Your task to perform on an android device: What's the news in Guyana? Image 0: 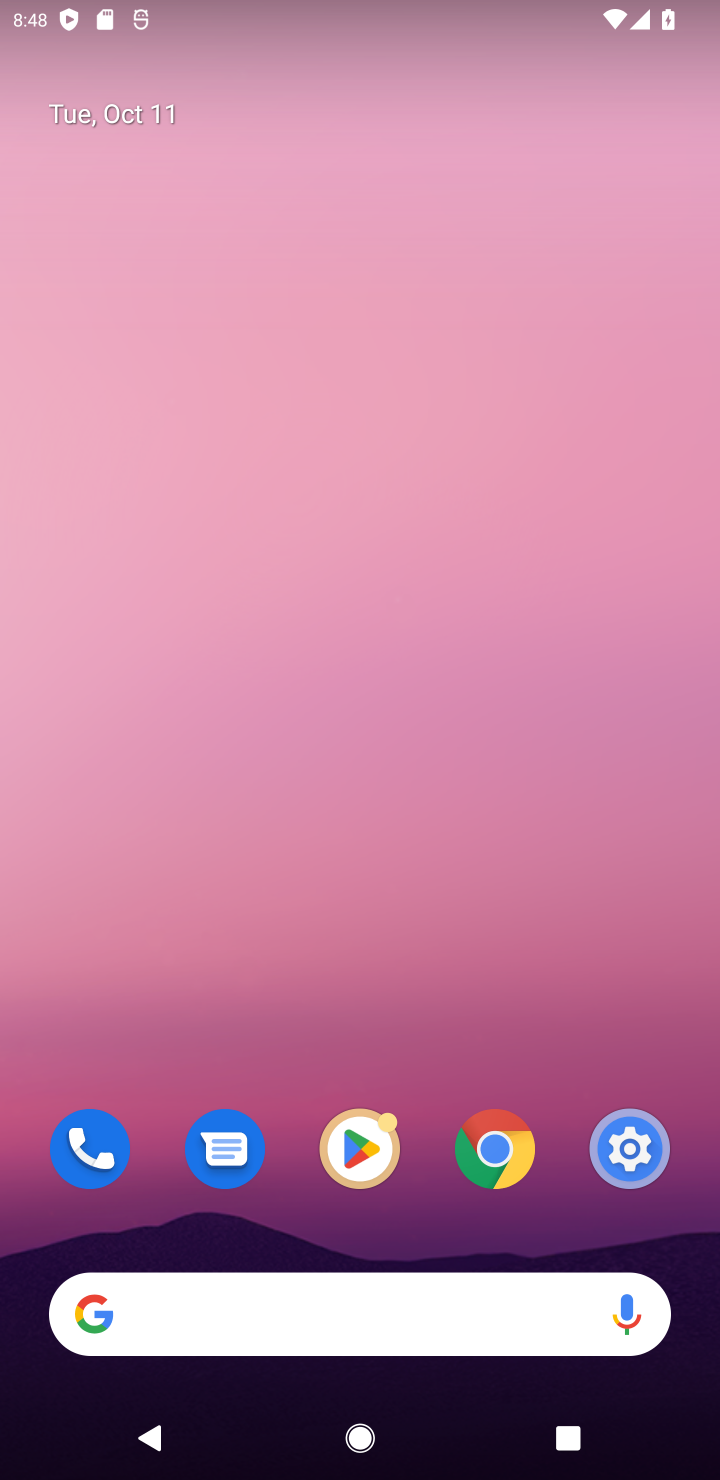
Step 0: drag from (362, 1169) to (464, 169)
Your task to perform on an android device: What's the news in Guyana? Image 1: 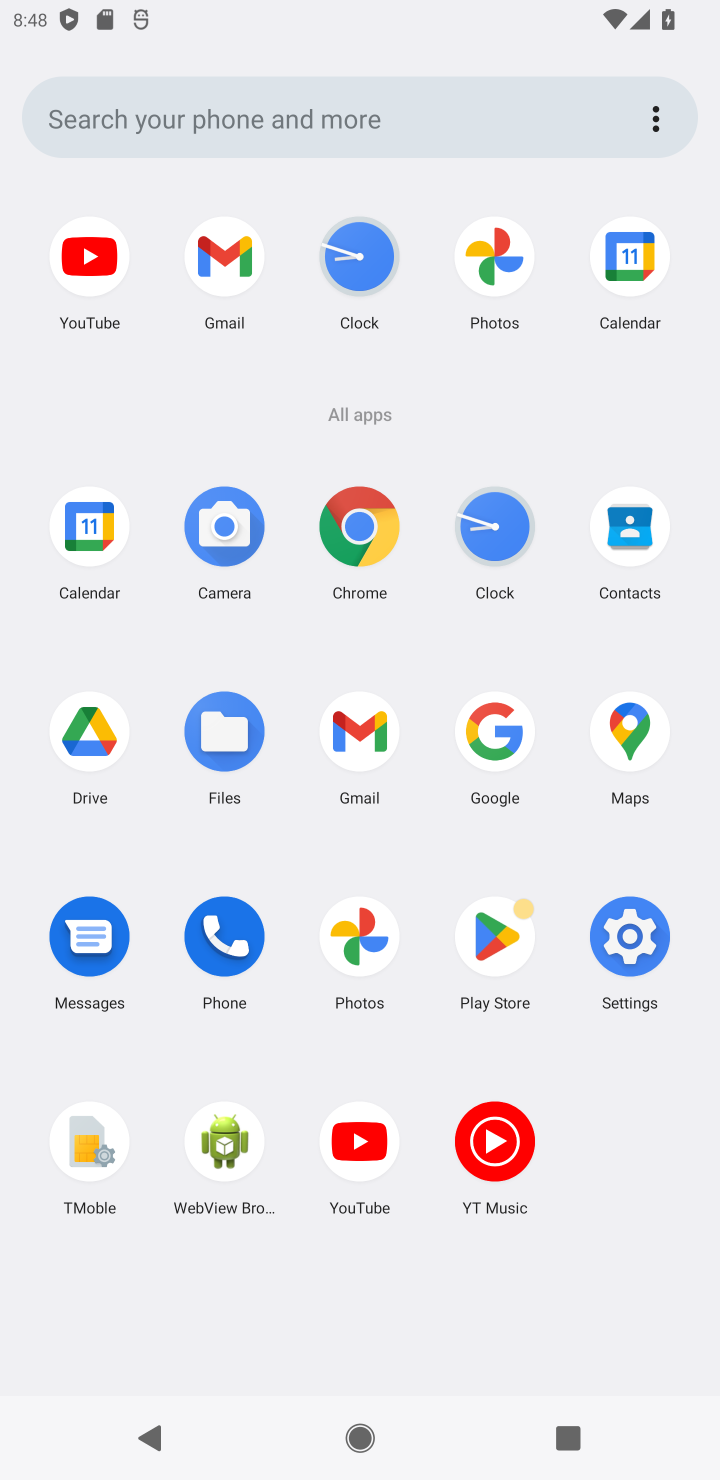
Step 1: click (380, 539)
Your task to perform on an android device: What's the news in Guyana? Image 2: 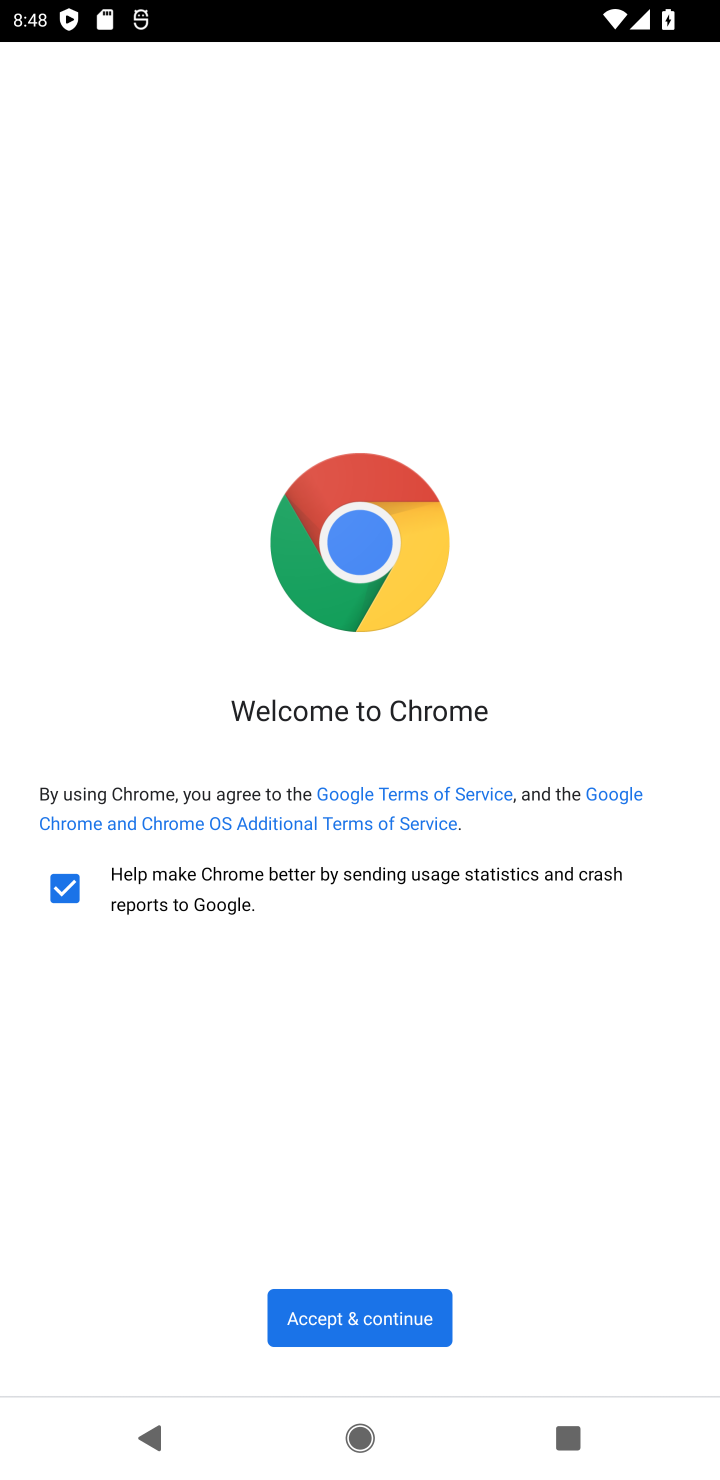
Step 2: click (407, 1326)
Your task to perform on an android device: What's the news in Guyana? Image 3: 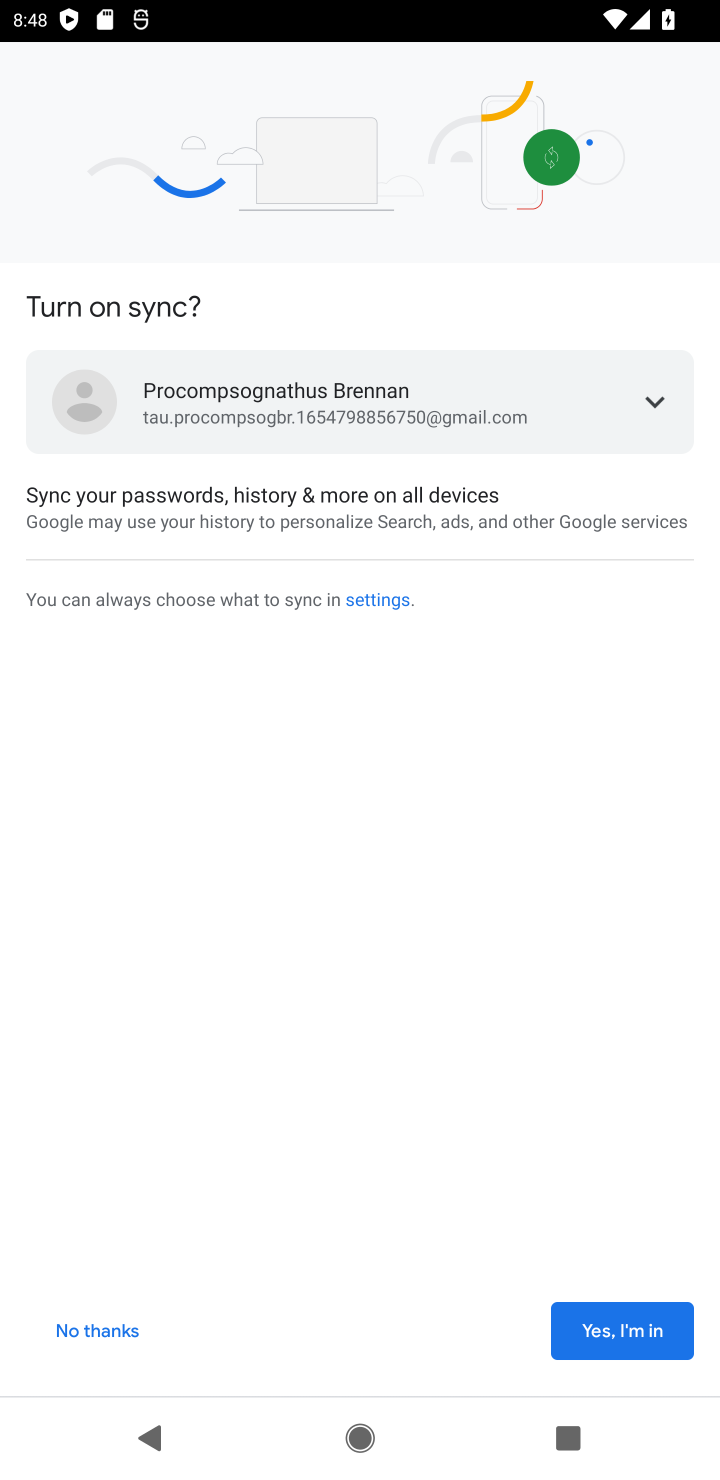
Step 3: click (623, 1333)
Your task to perform on an android device: What's the news in Guyana? Image 4: 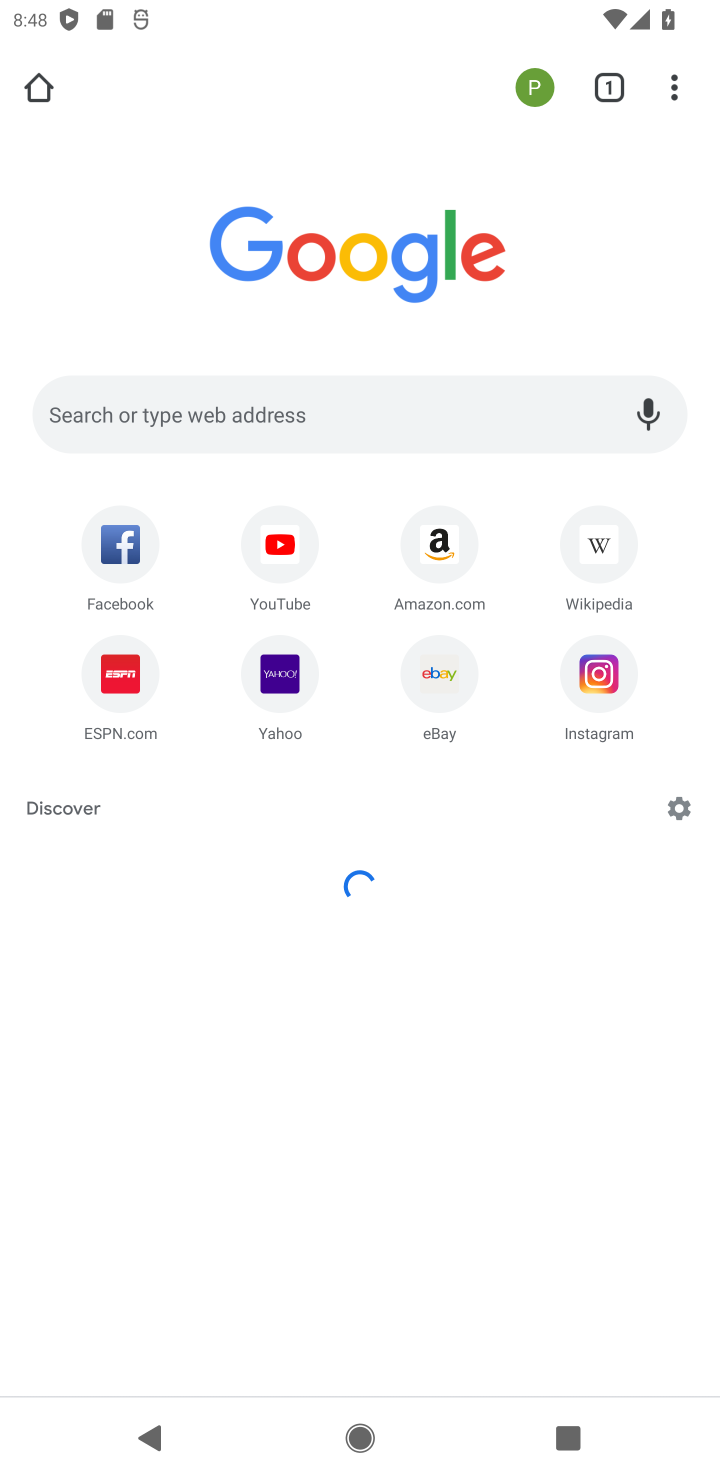
Step 4: click (310, 428)
Your task to perform on an android device: What's the news in Guyana? Image 5: 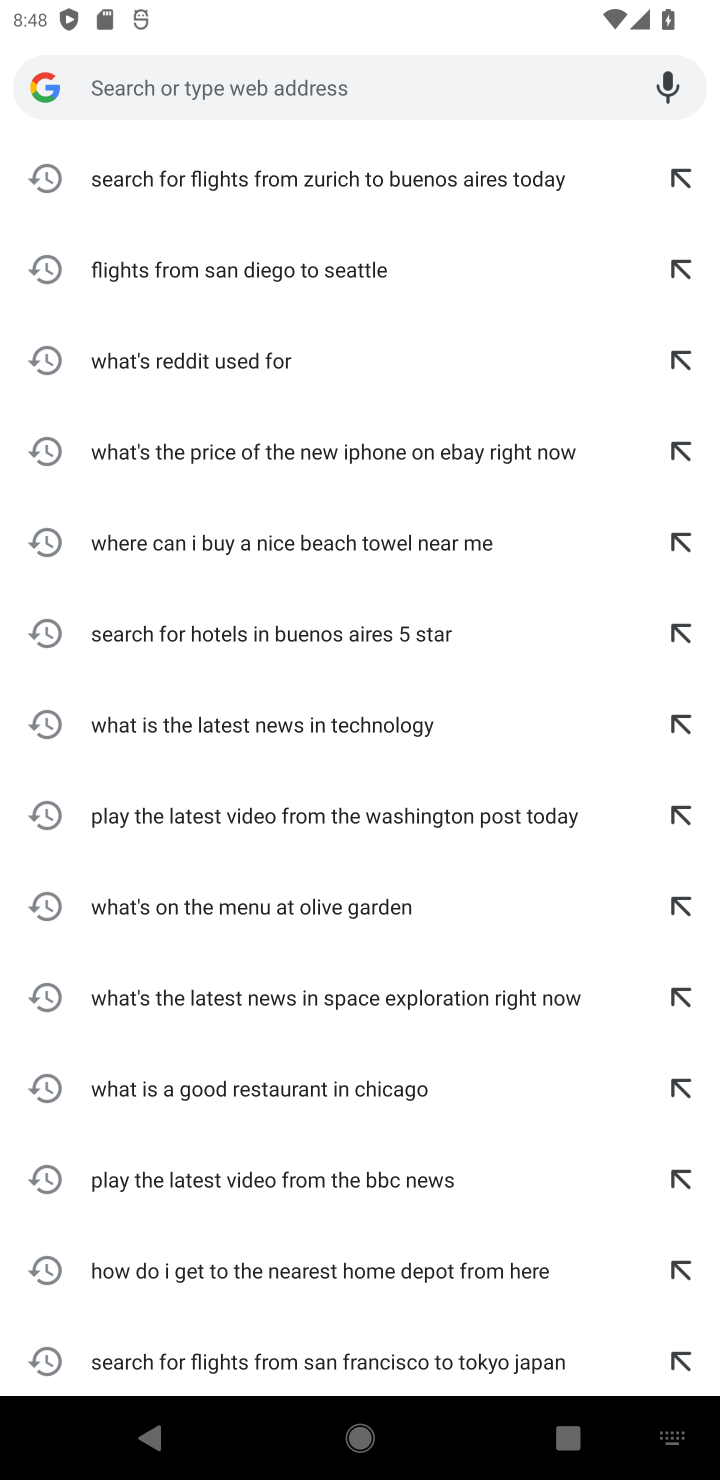
Step 5: type "What's the news in Guyana?"
Your task to perform on an android device: What's the news in Guyana? Image 6: 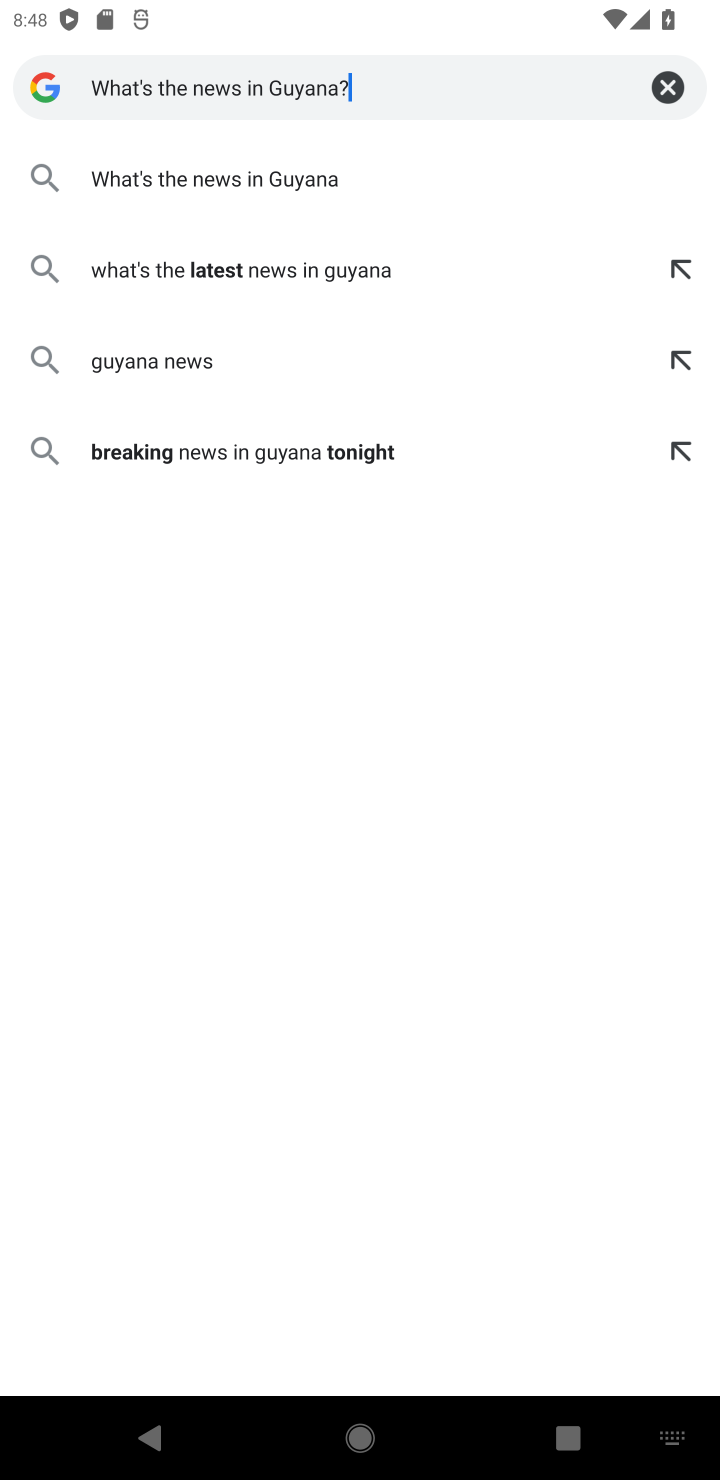
Step 6: press enter
Your task to perform on an android device: What's the news in Guyana? Image 7: 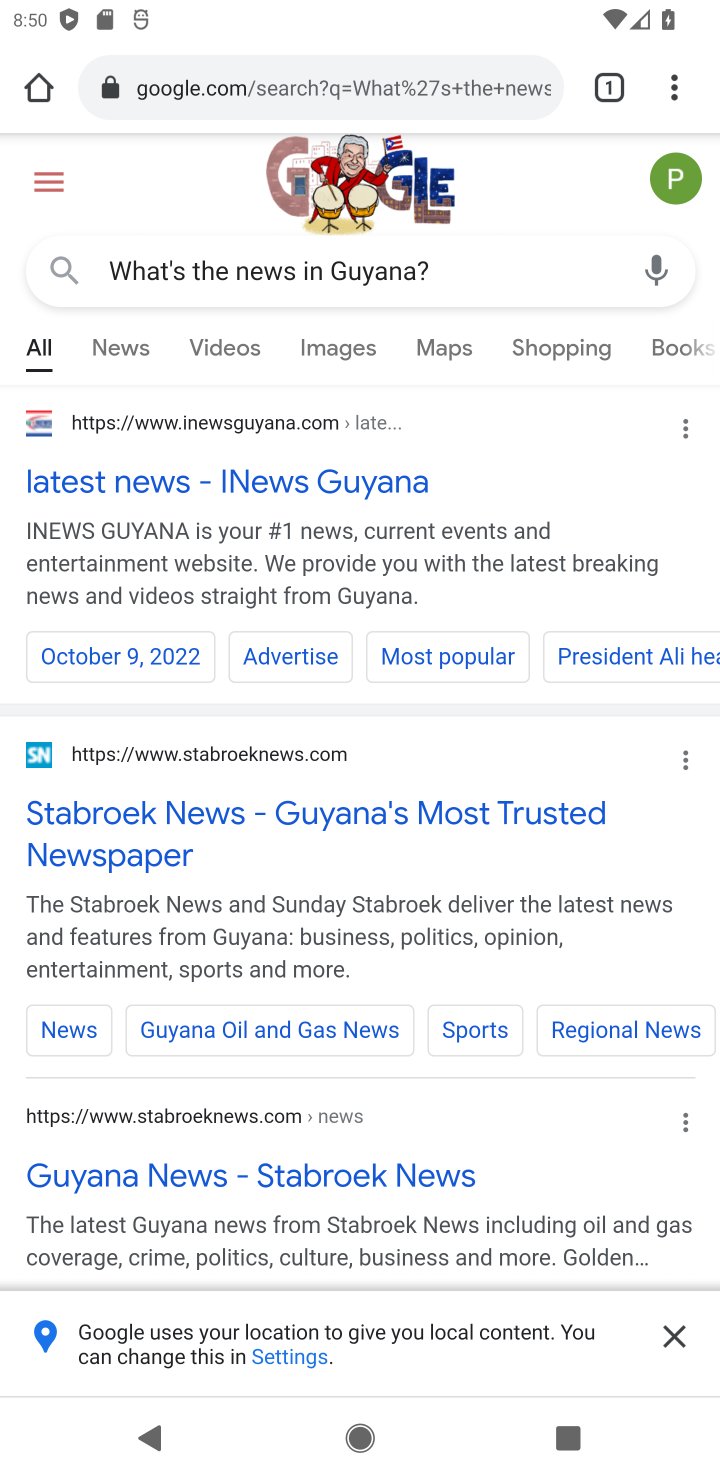
Step 7: click (351, 501)
Your task to perform on an android device: What's the news in Guyana? Image 8: 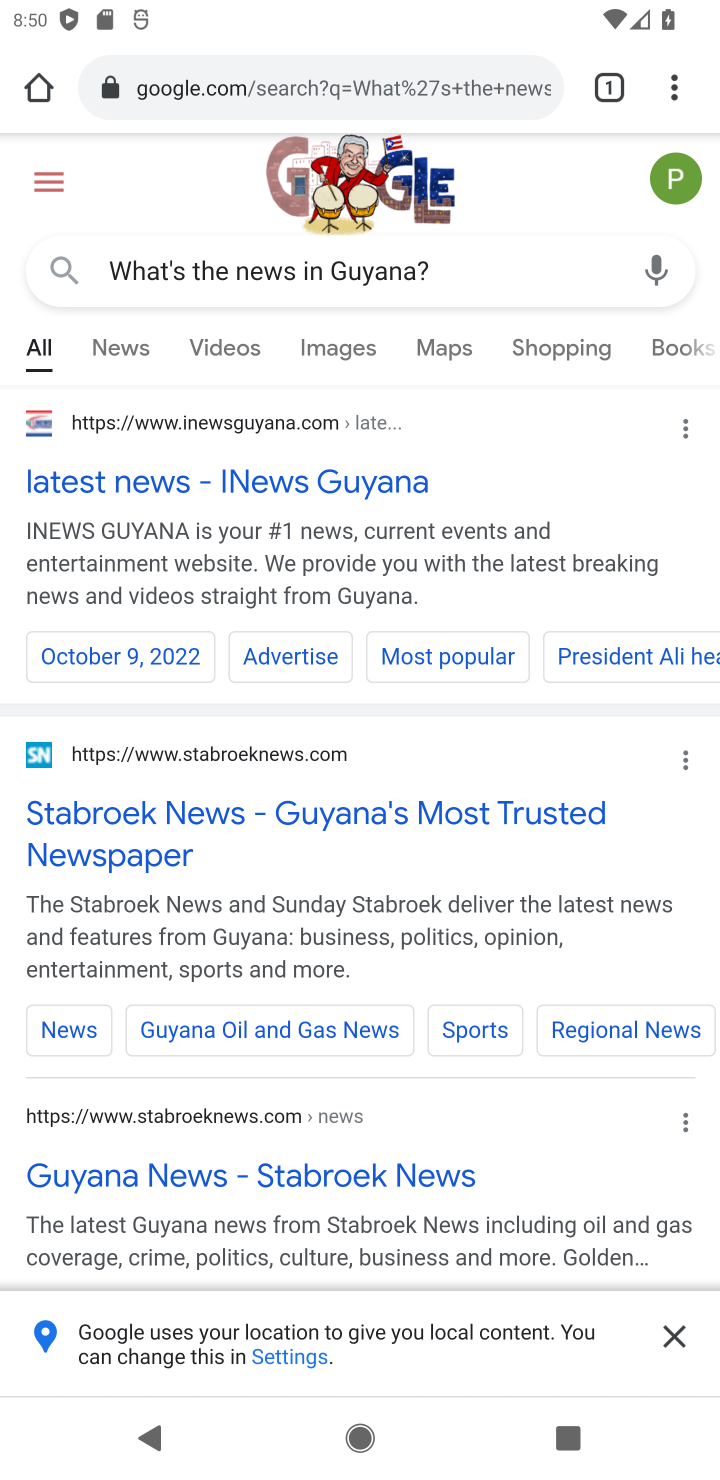
Step 8: click (363, 468)
Your task to perform on an android device: What's the news in Guyana? Image 9: 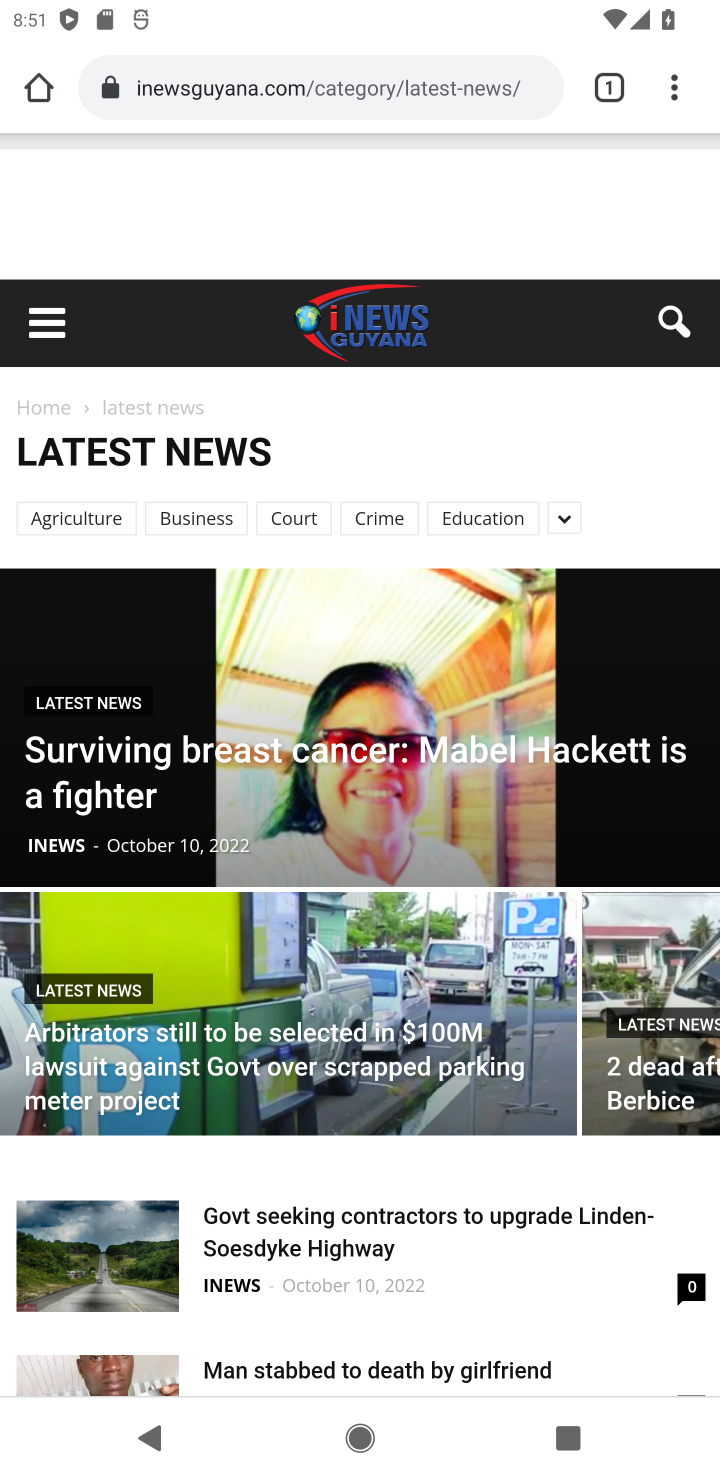
Step 9: task complete